Your task to perform on an android device: Open battery settings Image 0: 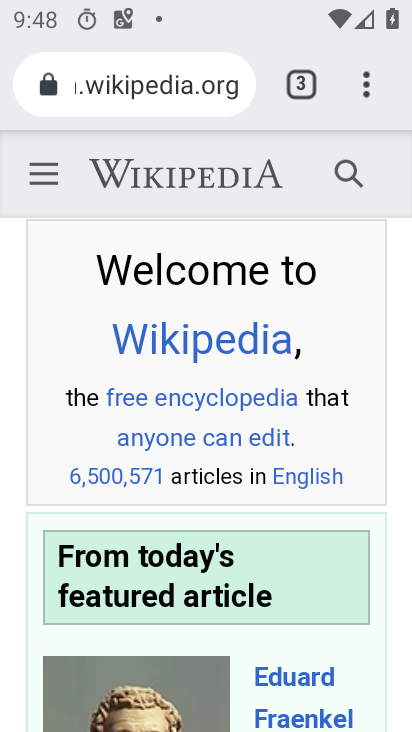
Step 0: press home button
Your task to perform on an android device: Open battery settings Image 1: 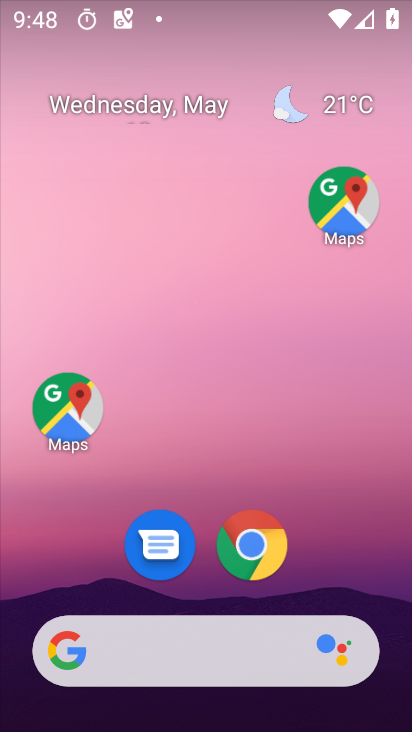
Step 1: drag from (338, 590) to (219, 85)
Your task to perform on an android device: Open battery settings Image 2: 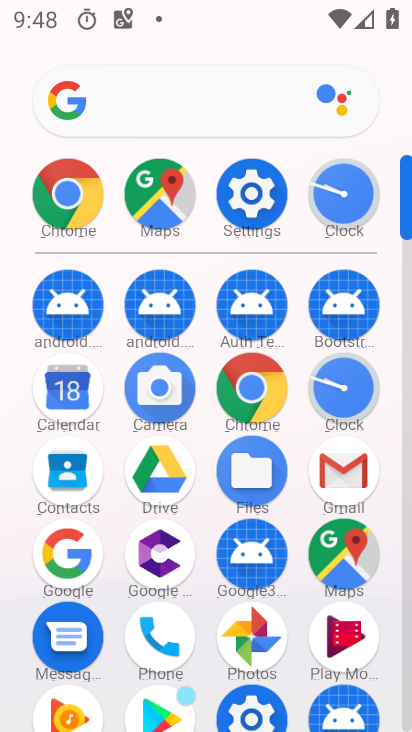
Step 2: click (249, 190)
Your task to perform on an android device: Open battery settings Image 3: 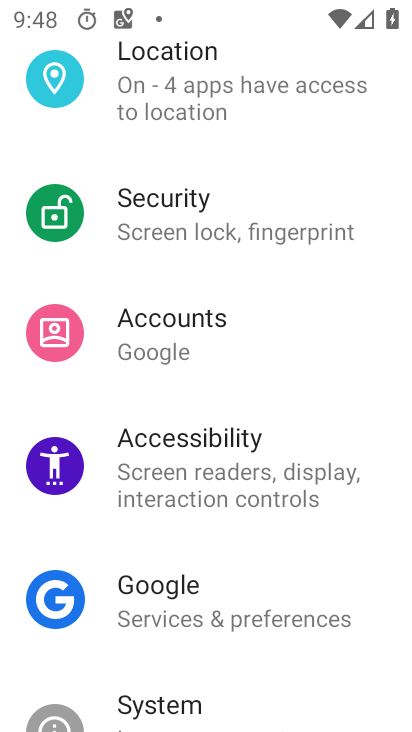
Step 3: drag from (191, 282) to (255, 449)
Your task to perform on an android device: Open battery settings Image 4: 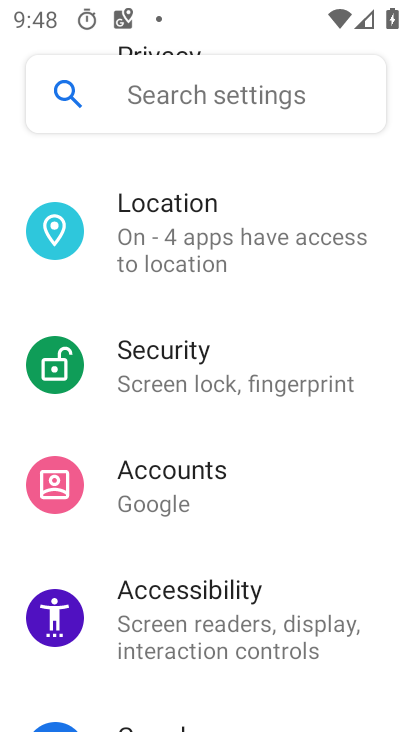
Step 4: drag from (244, 271) to (280, 460)
Your task to perform on an android device: Open battery settings Image 5: 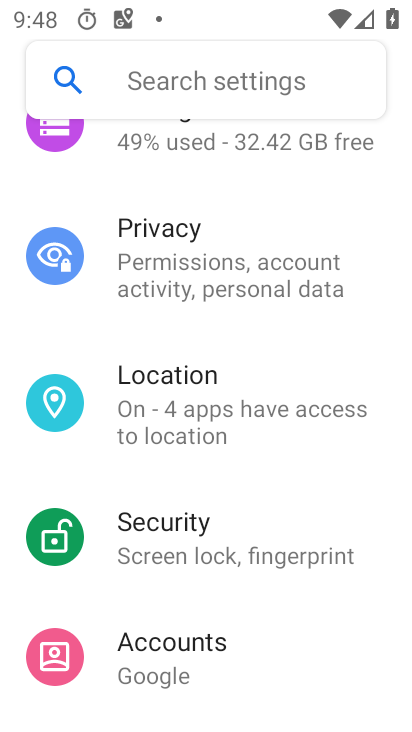
Step 5: drag from (288, 322) to (267, 519)
Your task to perform on an android device: Open battery settings Image 6: 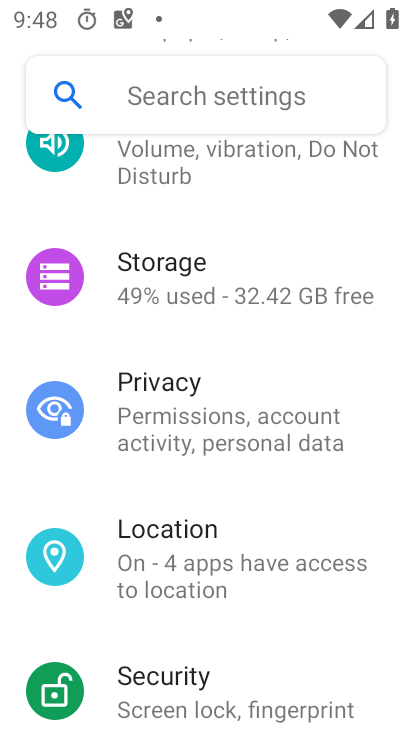
Step 6: drag from (156, 257) to (236, 562)
Your task to perform on an android device: Open battery settings Image 7: 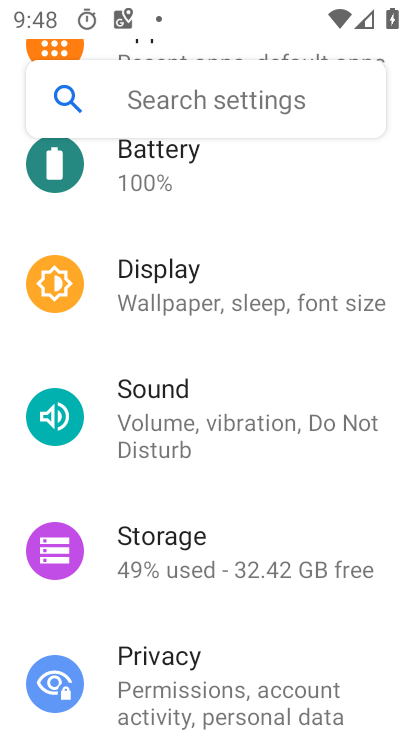
Step 7: click (219, 156)
Your task to perform on an android device: Open battery settings Image 8: 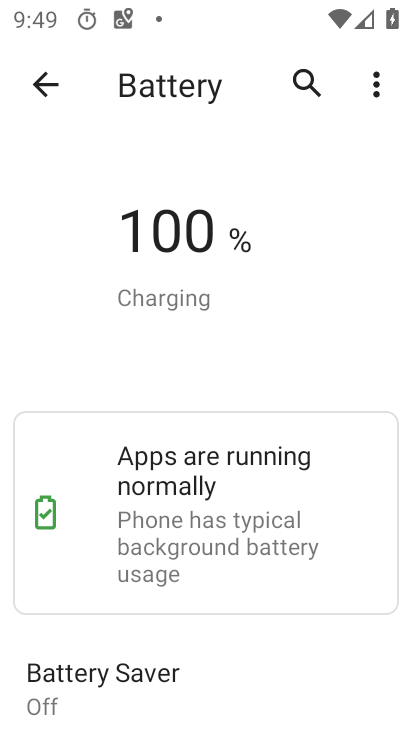
Step 8: task complete